Your task to perform on an android device: What's the weather going to be tomorrow? Image 0: 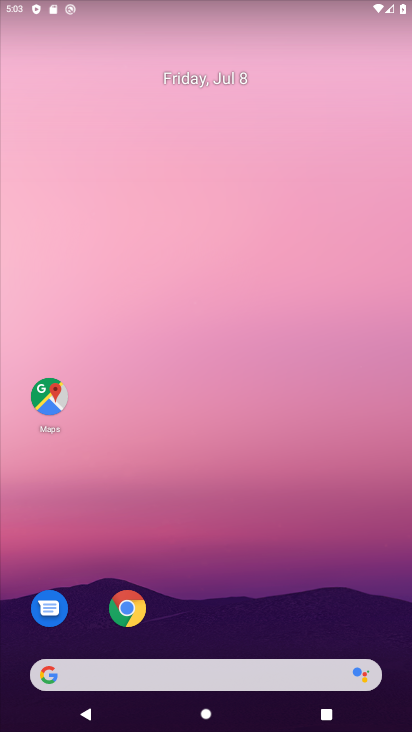
Step 0: drag from (326, 654) to (338, 72)
Your task to perform on an android device: What's the weather going to be tomorrow? Image 1: 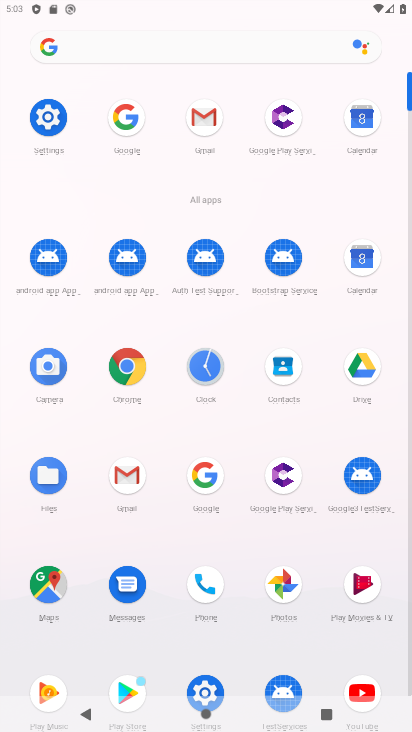
Step 1: click (215, 485)
Your task to perform on an android device: What's the weather going to be tomorrow? Image 2: 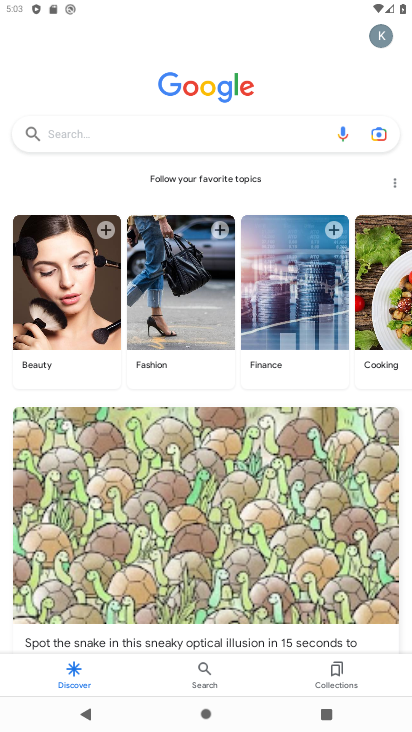
Step 2: click (130, 131)
Your task to perform on an android device: What's the weather going to be tomorrow? Image 3: 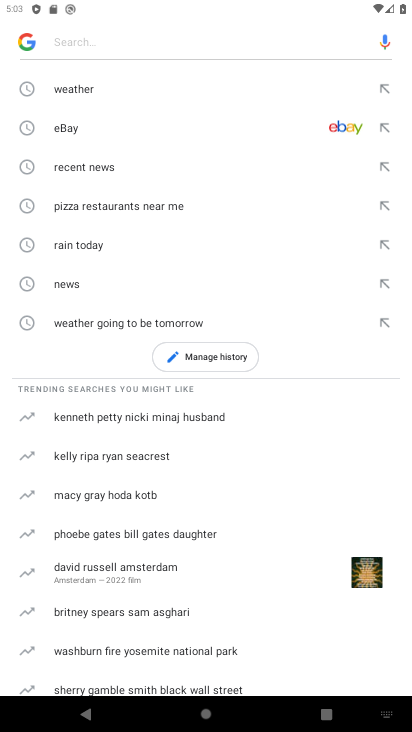
Step 3: click (118, 86)
Your task to perform on an android device: What's the weather going to be tomorrow? Image 4: 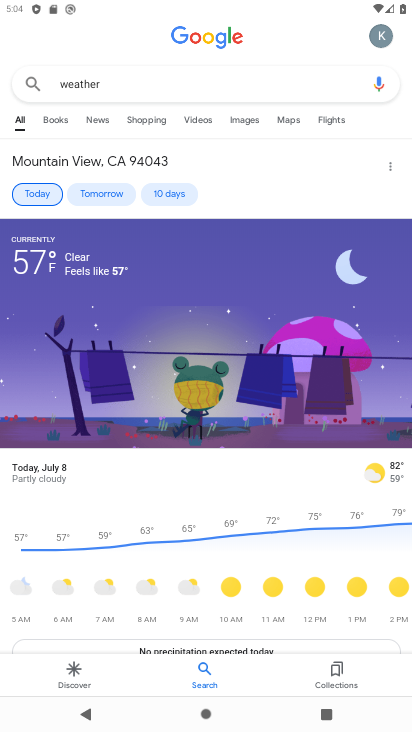
Step 4: task complete